Your task to perform on an android device: Go to Yahoo.com Image 0: 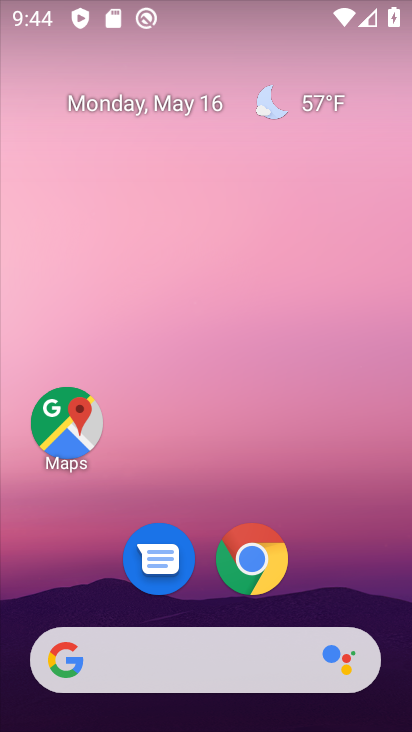
Step 0: click (255, 564)
Your task to perform on an android device: Go to Yahoo.com Image 1: 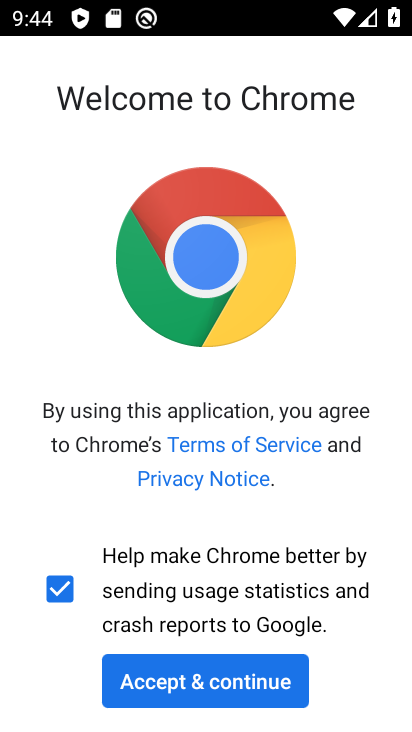
Step 1: click (251, 673)
Your task to perform on an android device: Go to Yahoo.com Image 2: 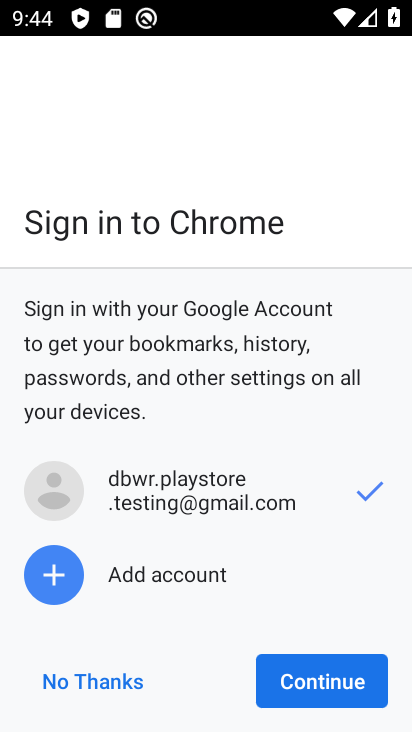
Step 2: click (333, 674)
Your task to perform on an android device: Go to Yahoo.com Image 3: 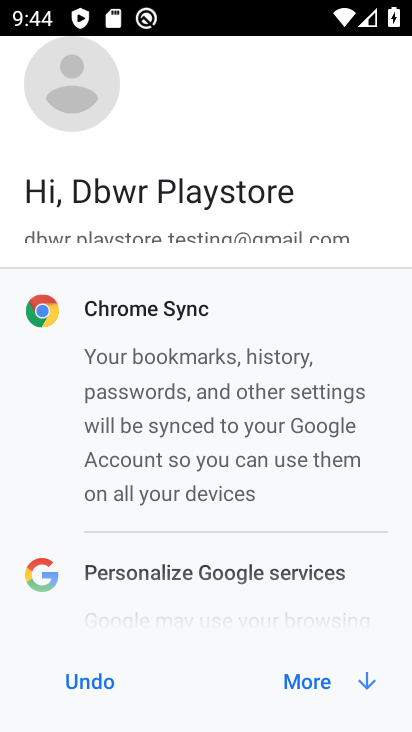
Step 3: click (320, 689)
Your task to perform on an android device: Go to Yahoo.com Image 4: 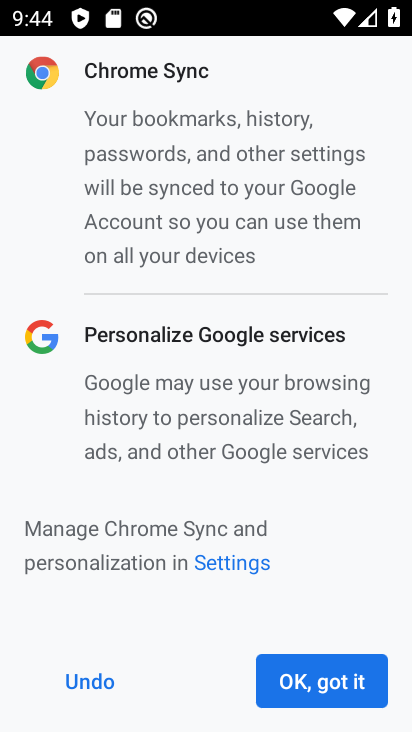
Step 4: click (320, 687)
Your task to perform on an android device: Go to Yahoo.com Image 5: 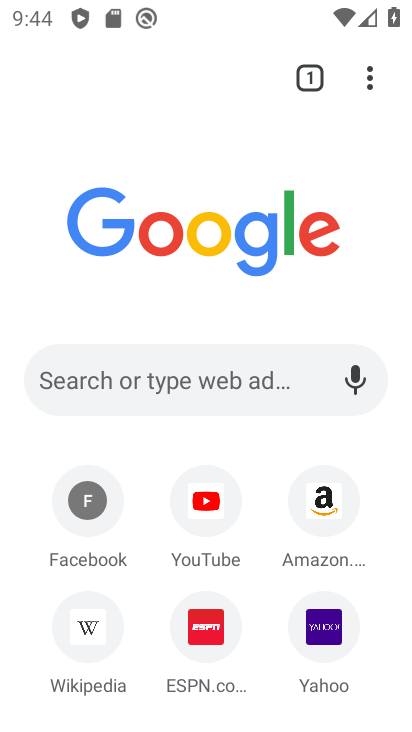
Step 5: click (327, 620)
Your task to perform on an android device: Go to Yahoo.com Image 6: 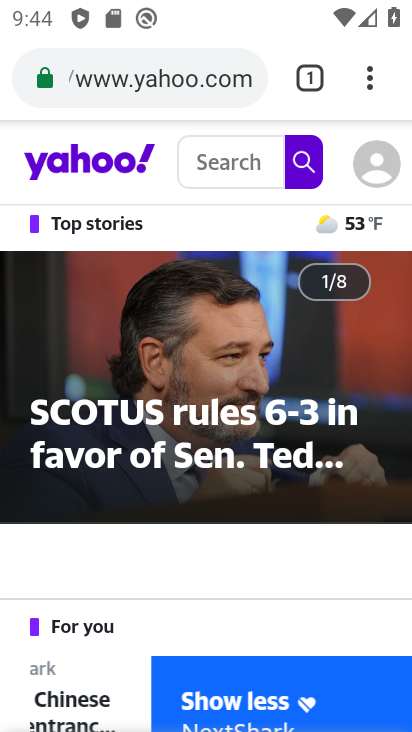
Step 6: task complete